Your task to perform on an android device: toggle location history Image 0: 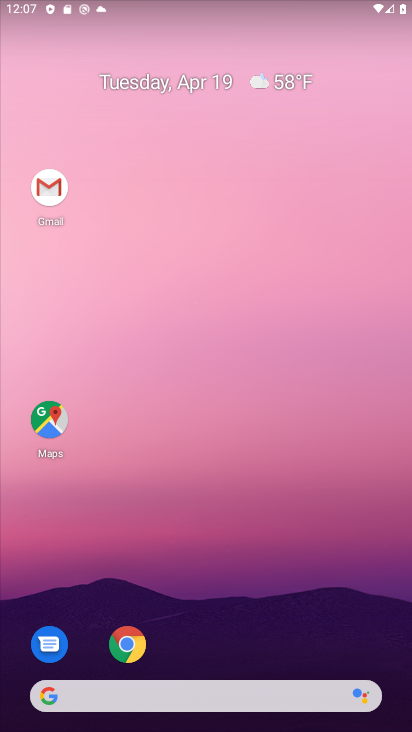
Step 0: drag from (191, 588) to (240, 182)
Your task to perform on an android device: toggle location history Image 1: 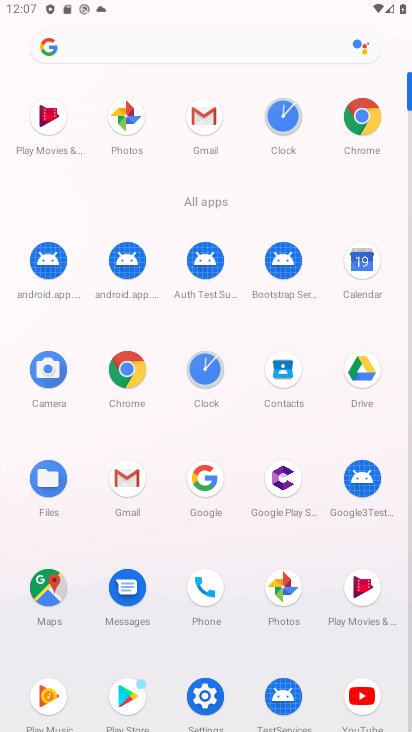
Step 1: click (207, 694)
Your task to perform on an android device: toggle location history Image 2: 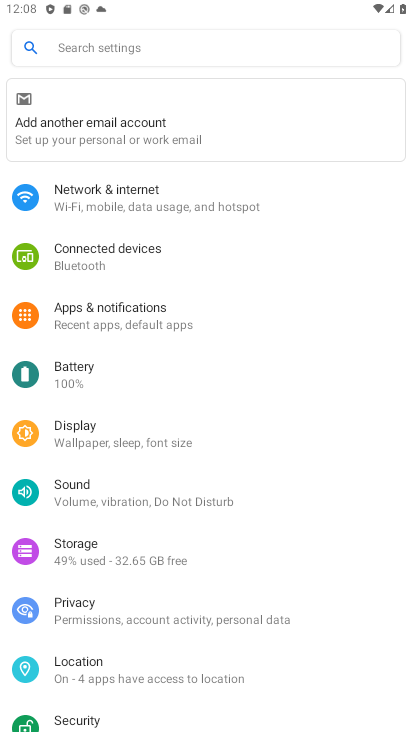
Step 2: drag from (171, 588) to (207, 237)
Your task to perform on an android device: toggle location history Image 3: 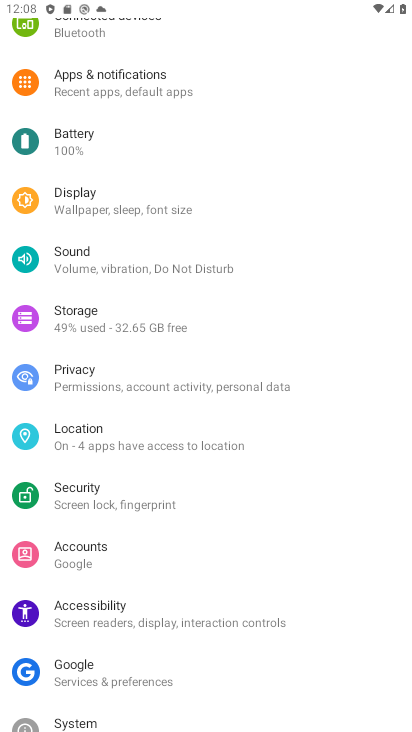
Step 3: click (139, 434)
Your task to perform on an android device: toggle location history Image 4: 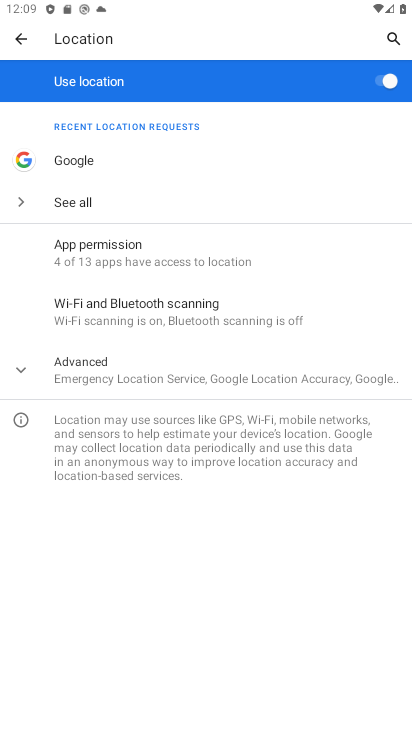
Step 4: click (117, 362)
Your task to perform on an android device: toggle location history Image 5: 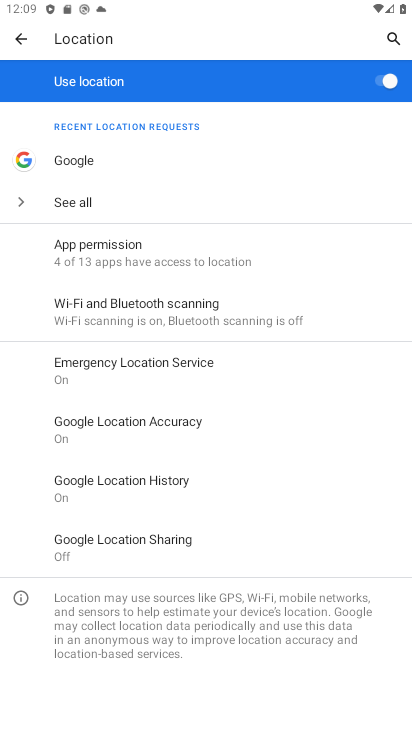
Step 5: click (157, 491)
Your task to perform on an android device: toggle location history Image 6: 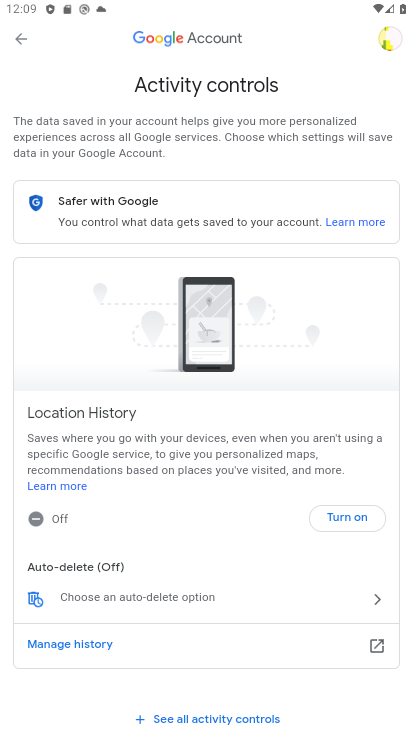
Step 6: click (352, 519)
Your task to perform on an android device: toggle location history Image 7: 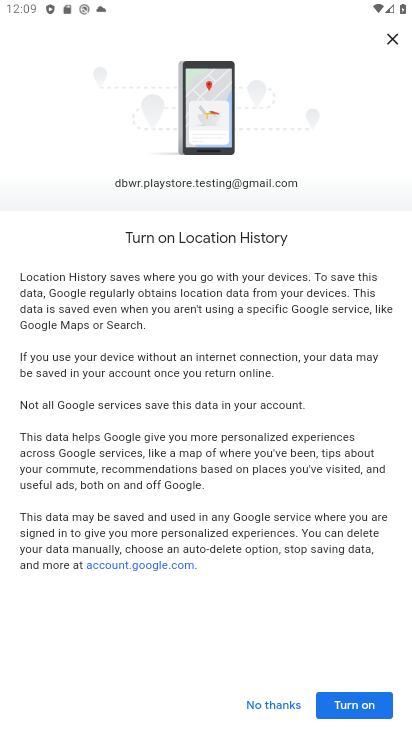
Step 7: click (374, 703)
Your task to perform on an android device: toggle location history Image 8: 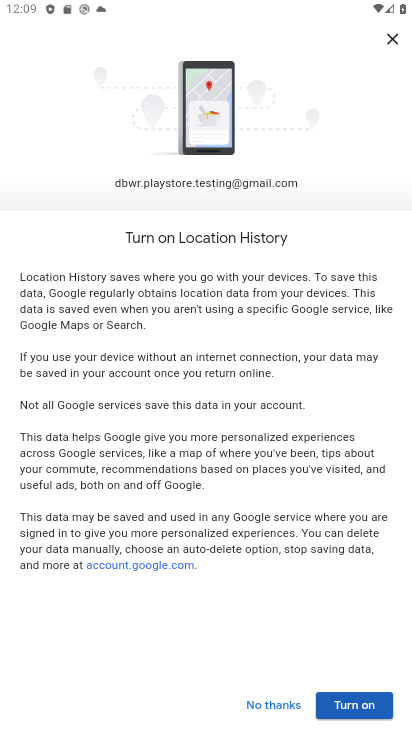
Step 8: click (350, 709)
Your task to perform on an android device: toggle location history Image 9: 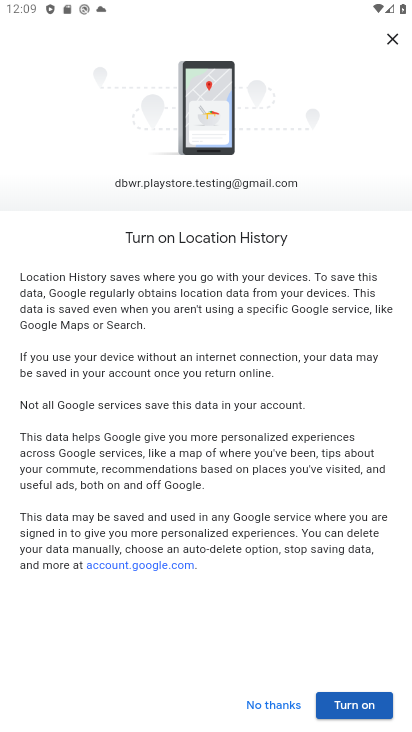
Step 9: click (357, 711)
Your task to perform on an android device: toggle location history Image 10: 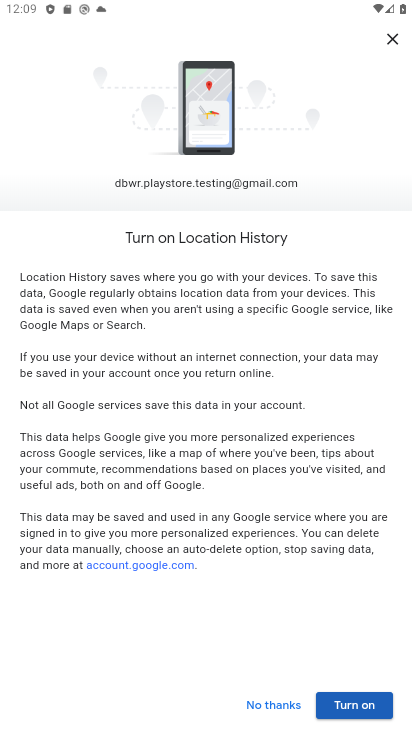
Step 10: click (370, 702)
Your task to perform on an android device: toggle location history Image 11: 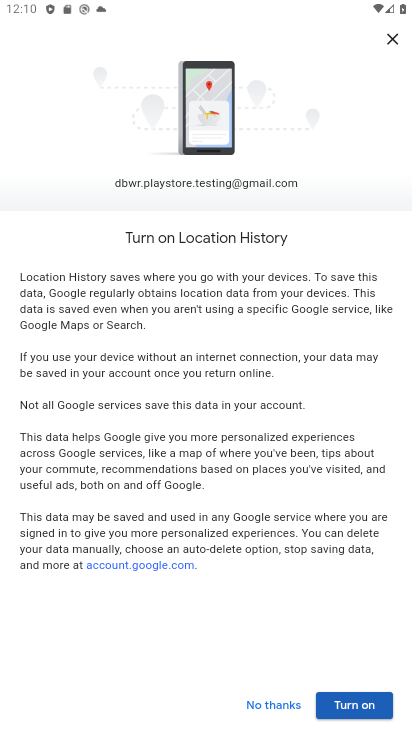
Step 11: click (371, 703)
Your task to perform on an android device: toggle location history Image 12: 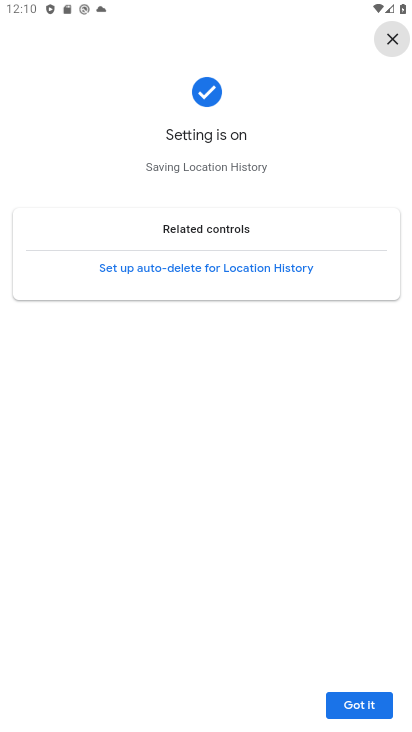
Step 12: click (364, 703)
Your task to perform on an android device: toggle location history Image 13: 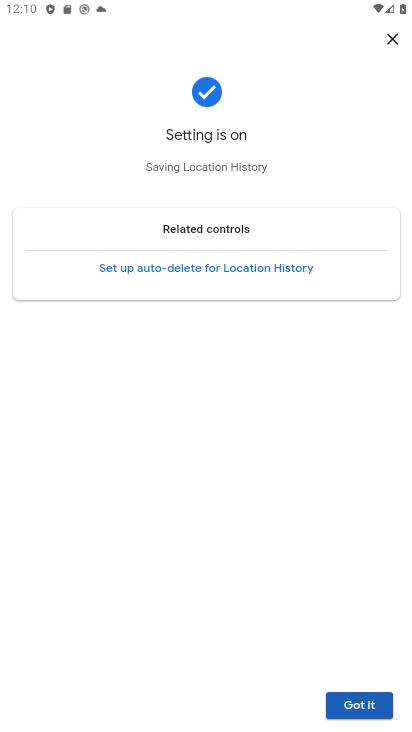
Step 13: click (375, 709)
Your task to perform on an android device: toggle location history Image 14: 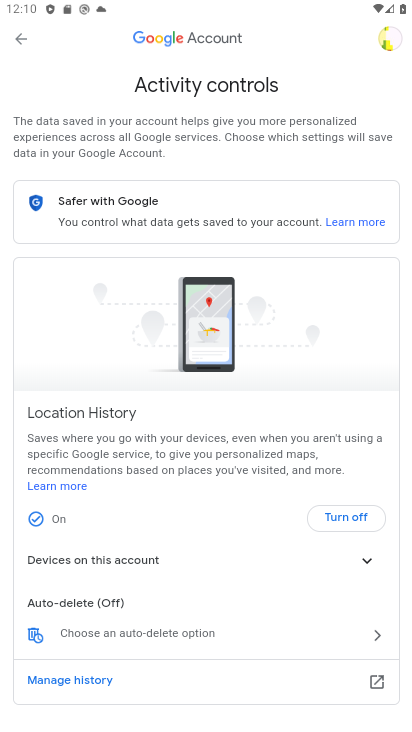
Step 14: task complete